Your task to perform on an android device: What's on my calendar tomorrow? Image 0: 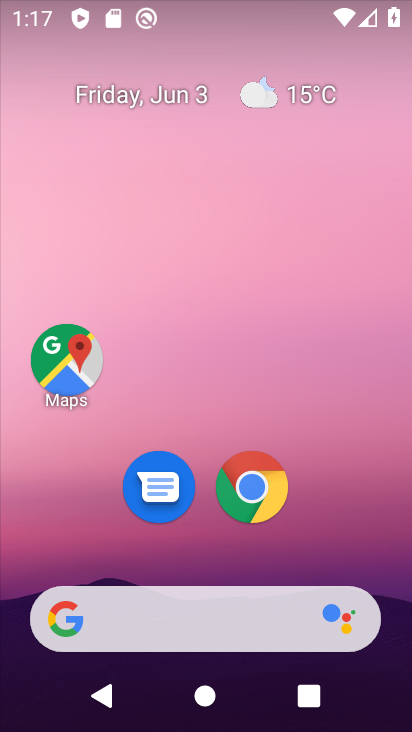
Step 0: drag from (155, 721) to (184, 185)
Your task to perform on an android device: What's on my calendar tomorrow? Image 1: 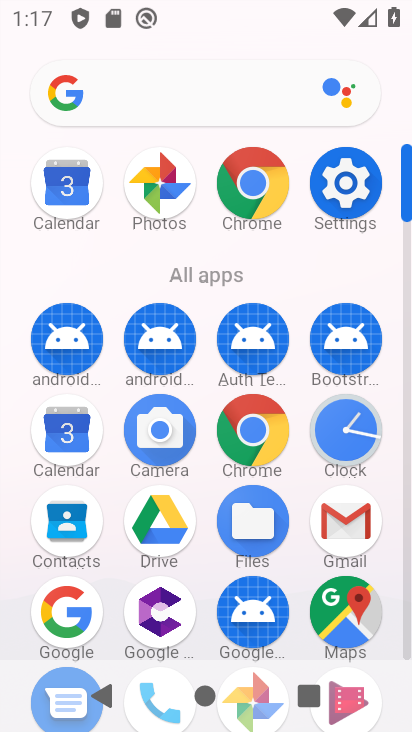
Step 1: click (55, 189)
Your task to perform on an android device: What's on my calendar tomorrow? Image 2: 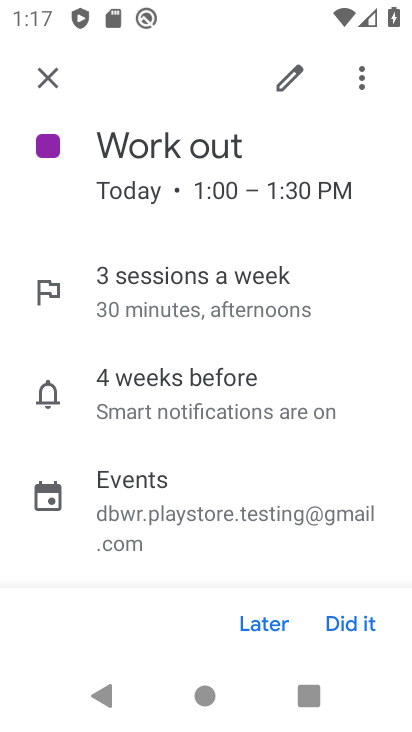
Step 2: click (54, 69)
Your task to perform on an android device: What's on my calendar tomorrow? Image 3: 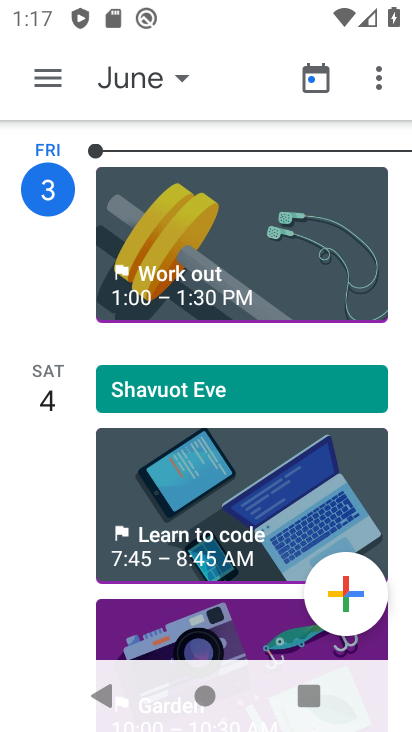
Step 3: click (169, 457)
Your task to perform on an android device: What's on my calendar tomorrow? Image 4: 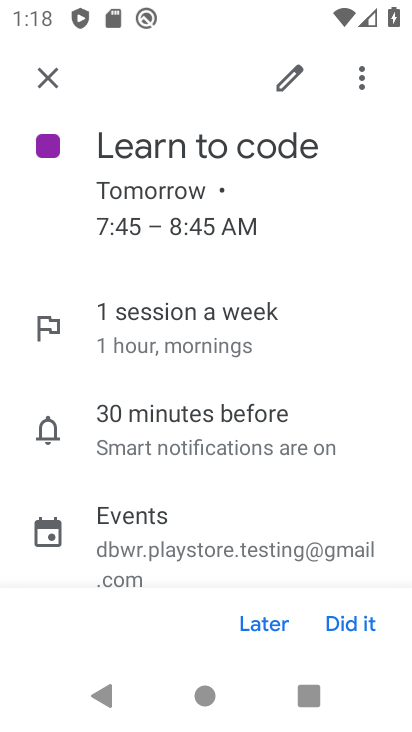
Step 4: task complete